Your task to perform on an android device: Open Maps and search for coffee Image 0: 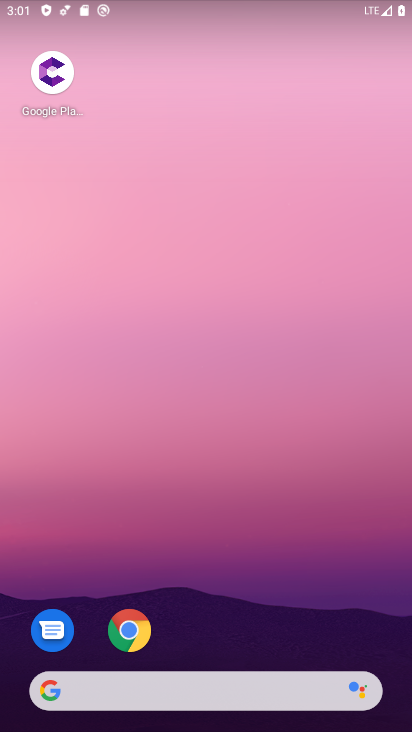
Step 0: drag from (199, 727) to (204, 43)
Your task to perform on an android device: Open Maps and search for coffee Image 1: 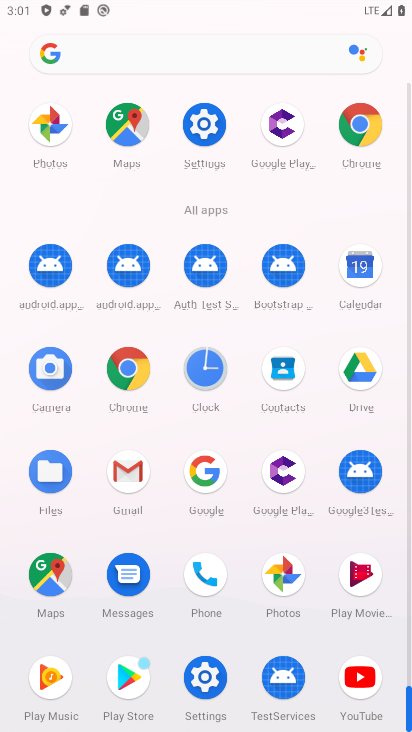
Step 1: click (45, 574)
Your task to perform on an android device: Open Maps and search for coffee Image 2: 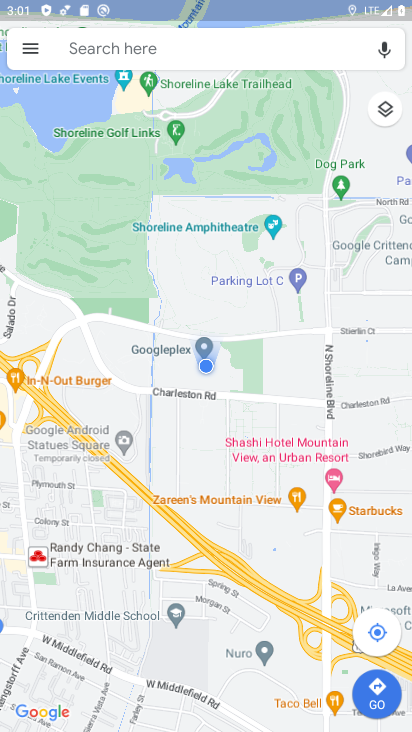
Step 2: click (216, 50)
Your task to perform on an android device: Open Maps and search for coffee Image 3: 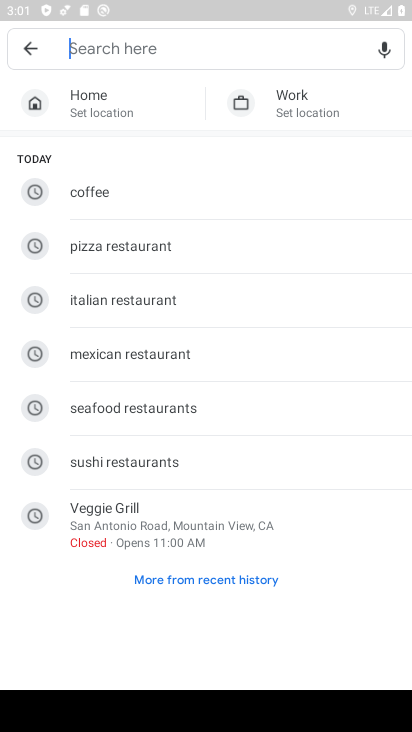
Step 3: type "Coffee"
Your task to perform on an android device: Open Maps and search for coffee Image 4: 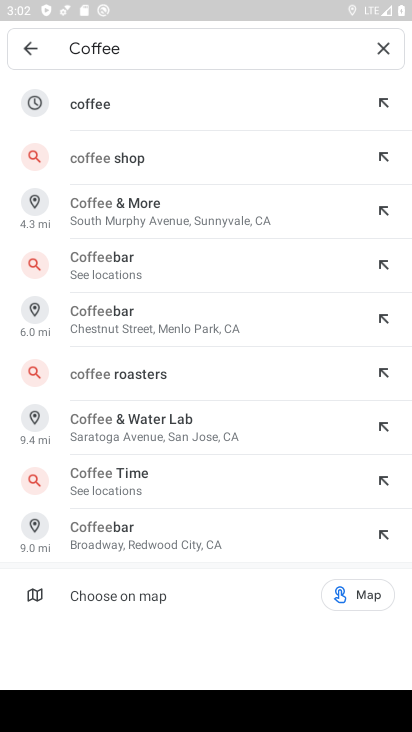
Step 4: click (84, 103)
Your task to perform on an android device: Open Maps and search for coffee Image 5: 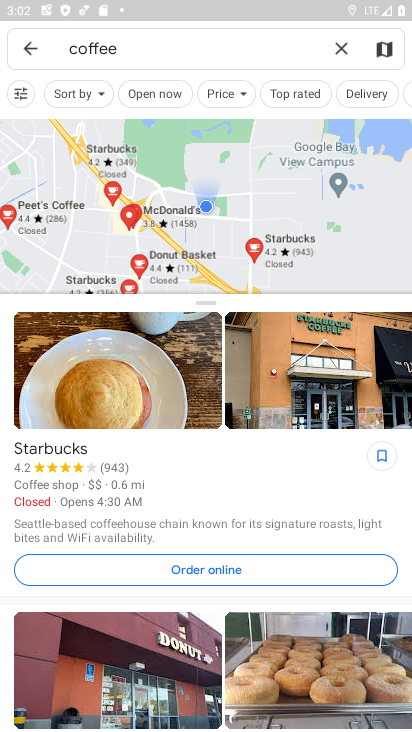
Step 5: task complete